Your task to perform on an android device: open app "Venmo" Image 0: 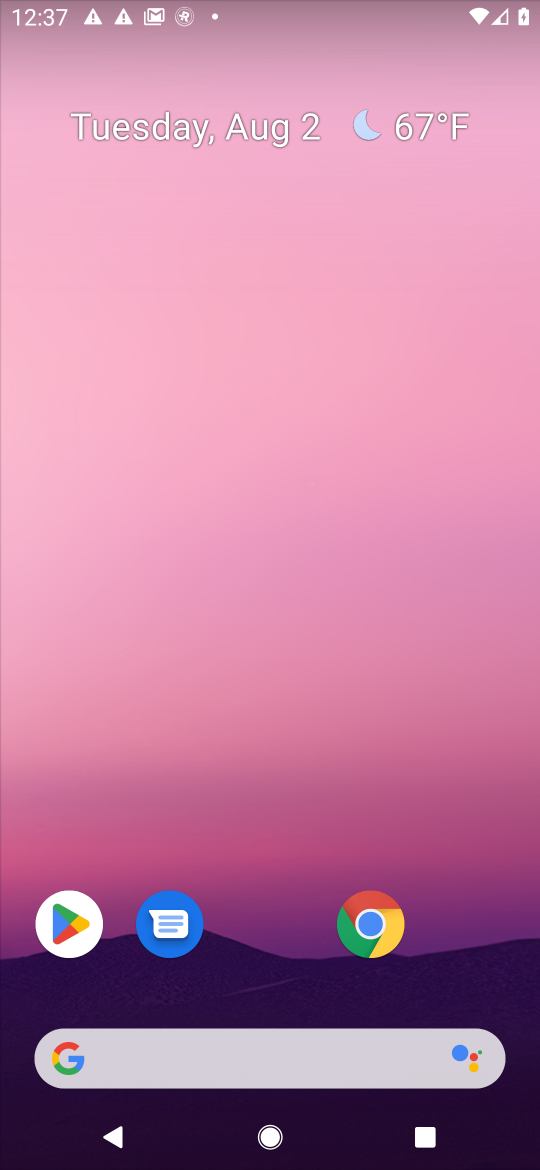
Step 0: press home button
Your task to perform on an android device: open app "Venmo" Image 1: 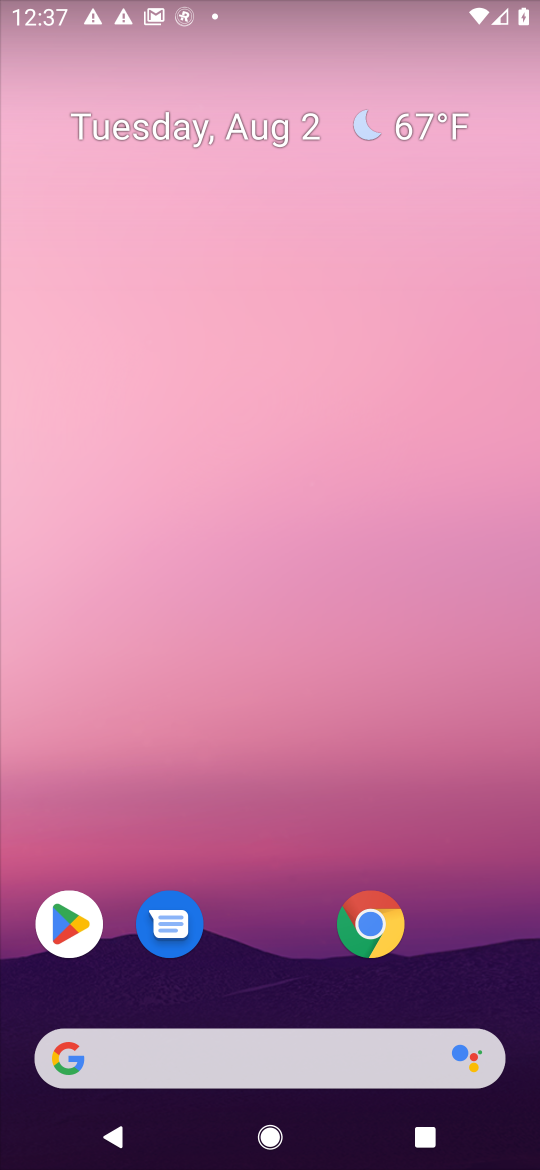
Step 1: click (65, 908)
Your task to perform on an android device: open app "Venmo" Image 2: 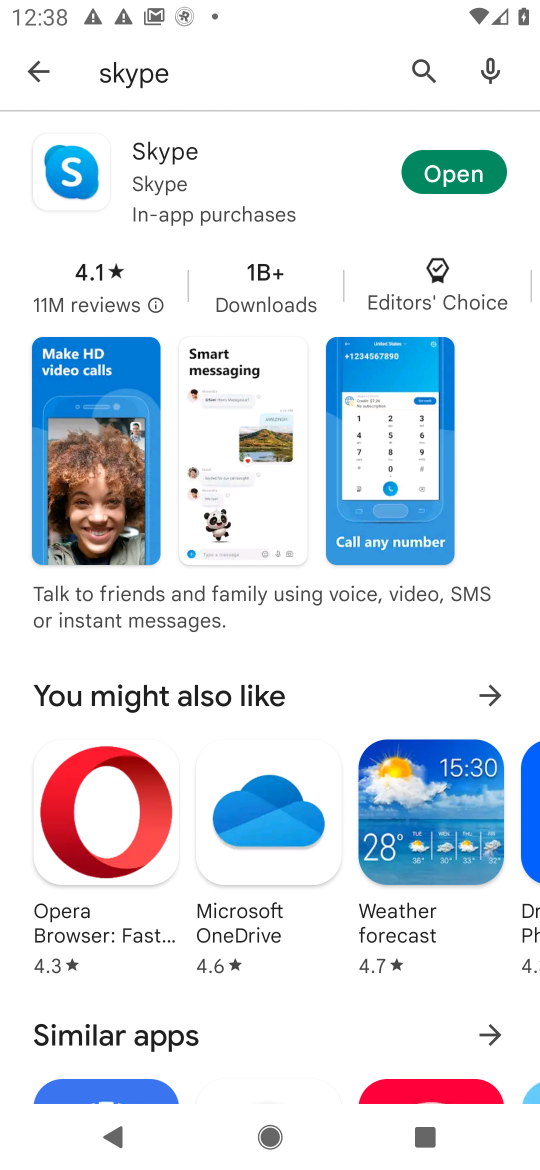
Step 2: click (415, 70)
Your task to perform on an android device: open app "Venmo" Image 3: 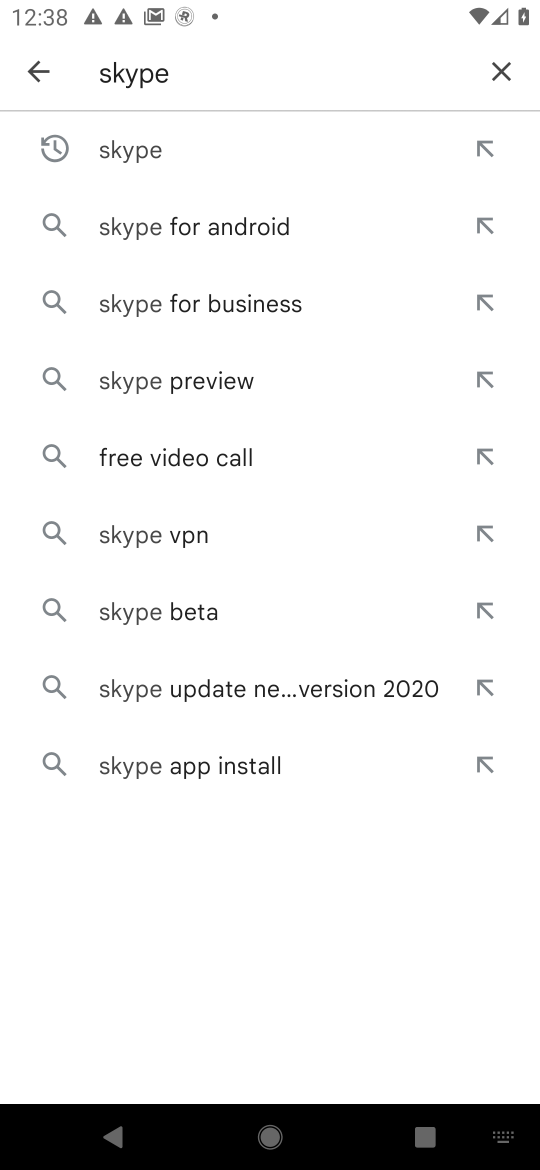
Step 3: click (498, 69)
Your task to perform on an android device: open app "Venmo" Image 4: 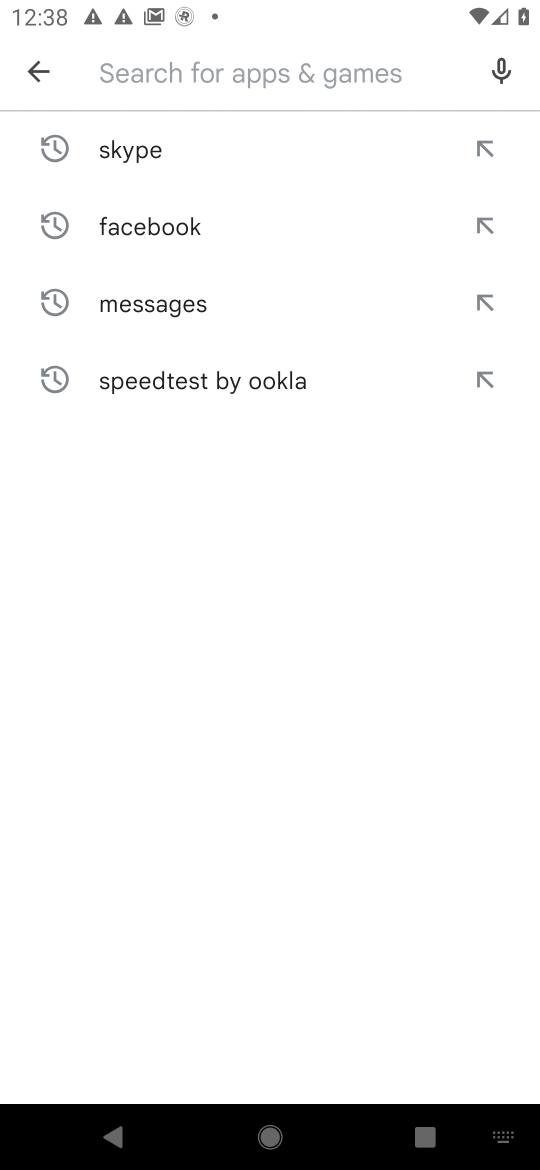
Step 4: type "Venmo"
Your task to perform on an android device: open app "Venmo" Image 5: 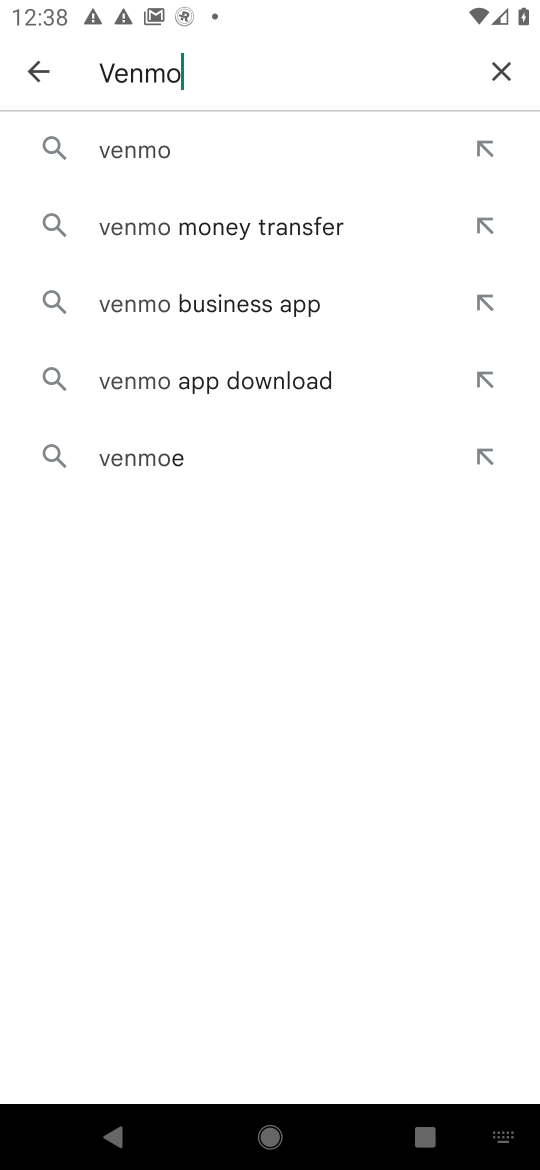
Step 5: click (176, 145)
Your task to perform on an android device: open app "Venmo" Image 6: 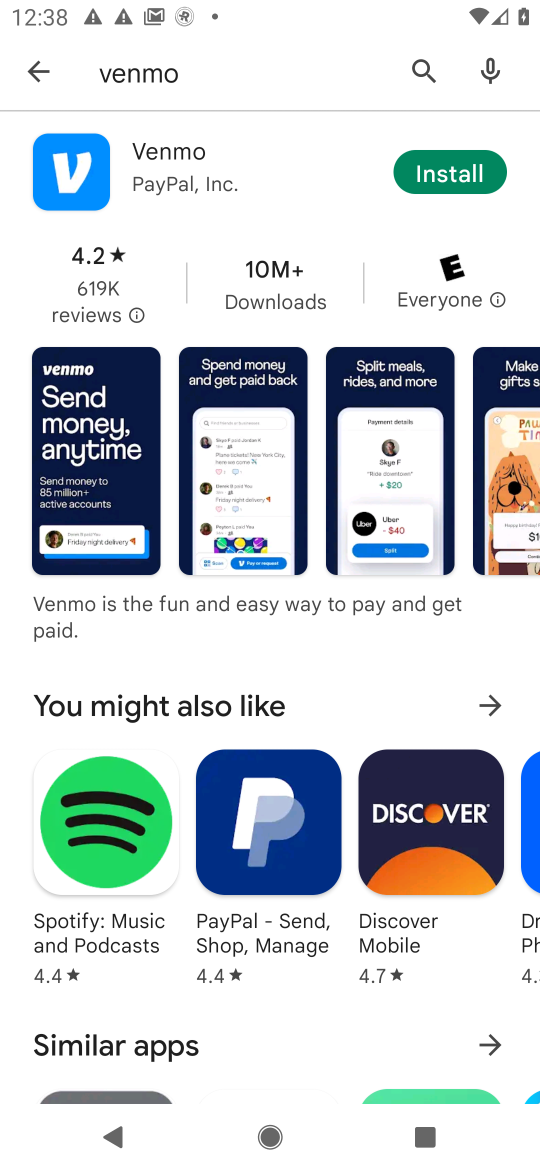
Step 6: task complete